Your task to perform on an android device: turn off location Image 0: 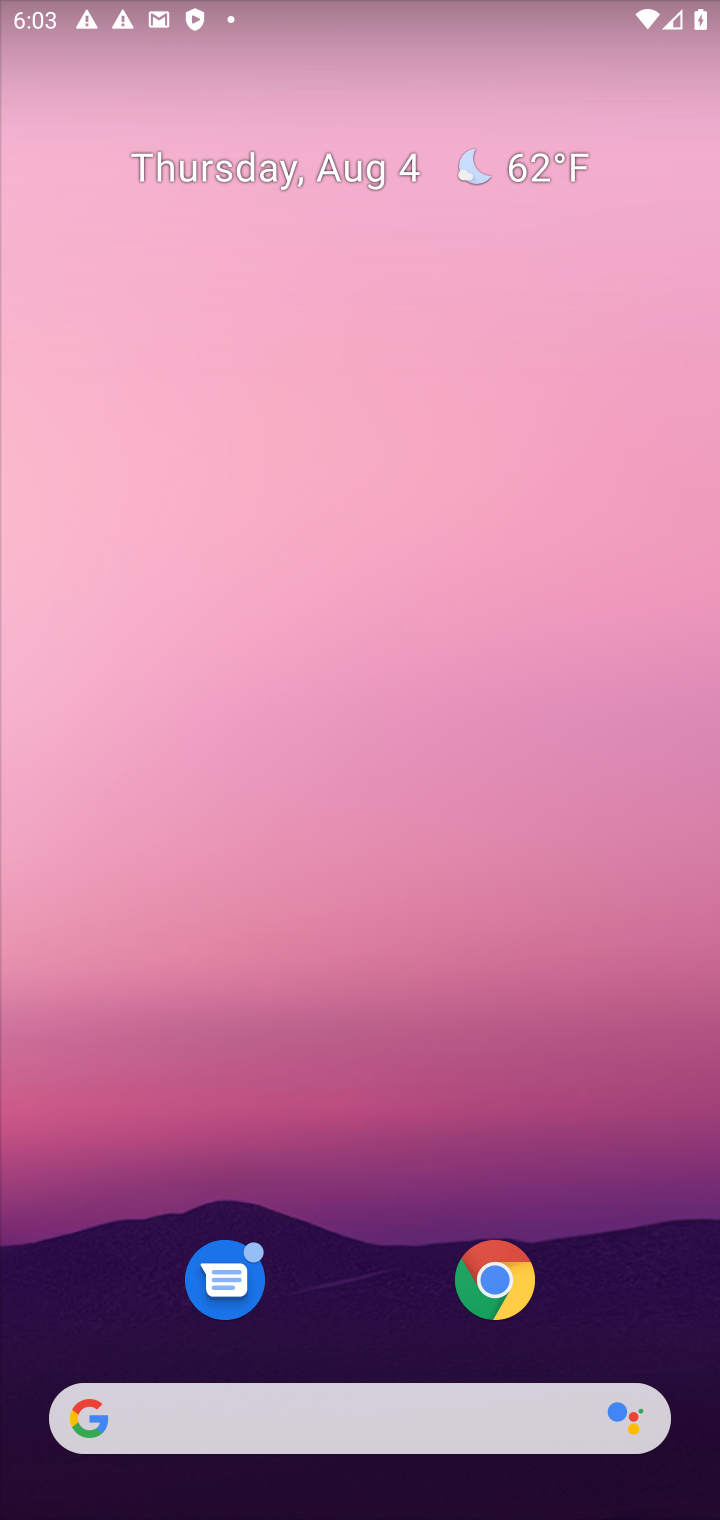
Step 0: drag from (331, 1299) to (374, 100)
Your task to perform on an android device: turn off location Image 1: 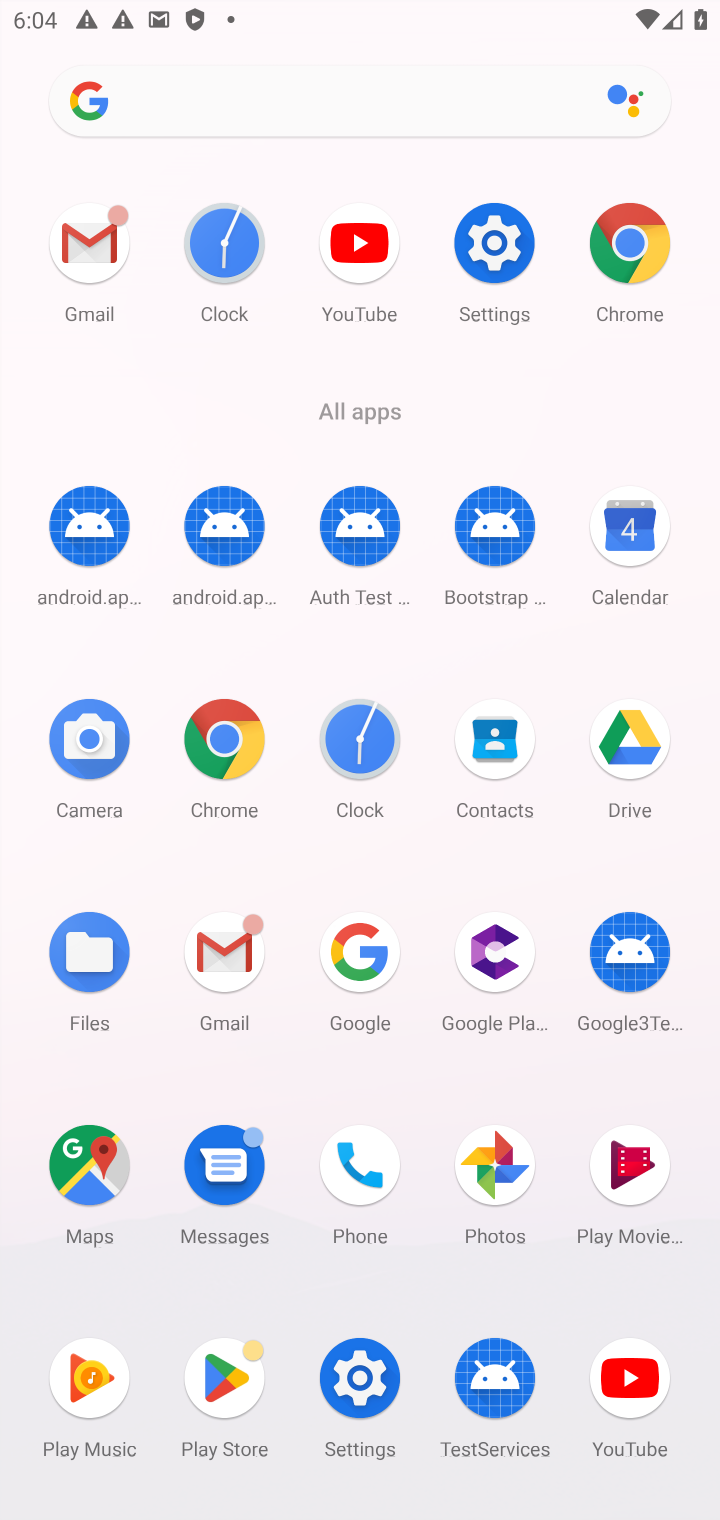
Step 1: click (497, 234)
Your task to perform on an android device: turn off location Image 2: 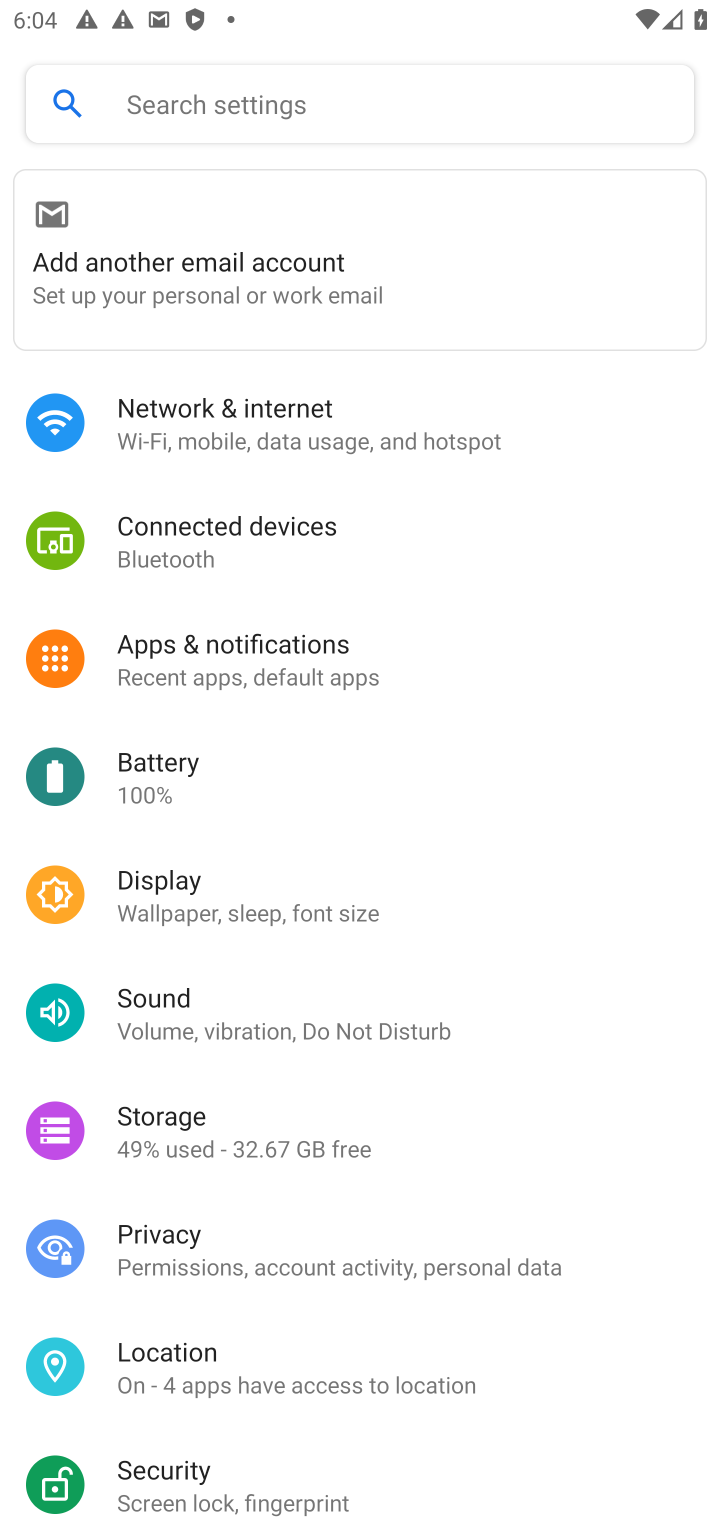
Step 2: click (213, 1373)
Your task to perform on an android device: turn off location Image 3: 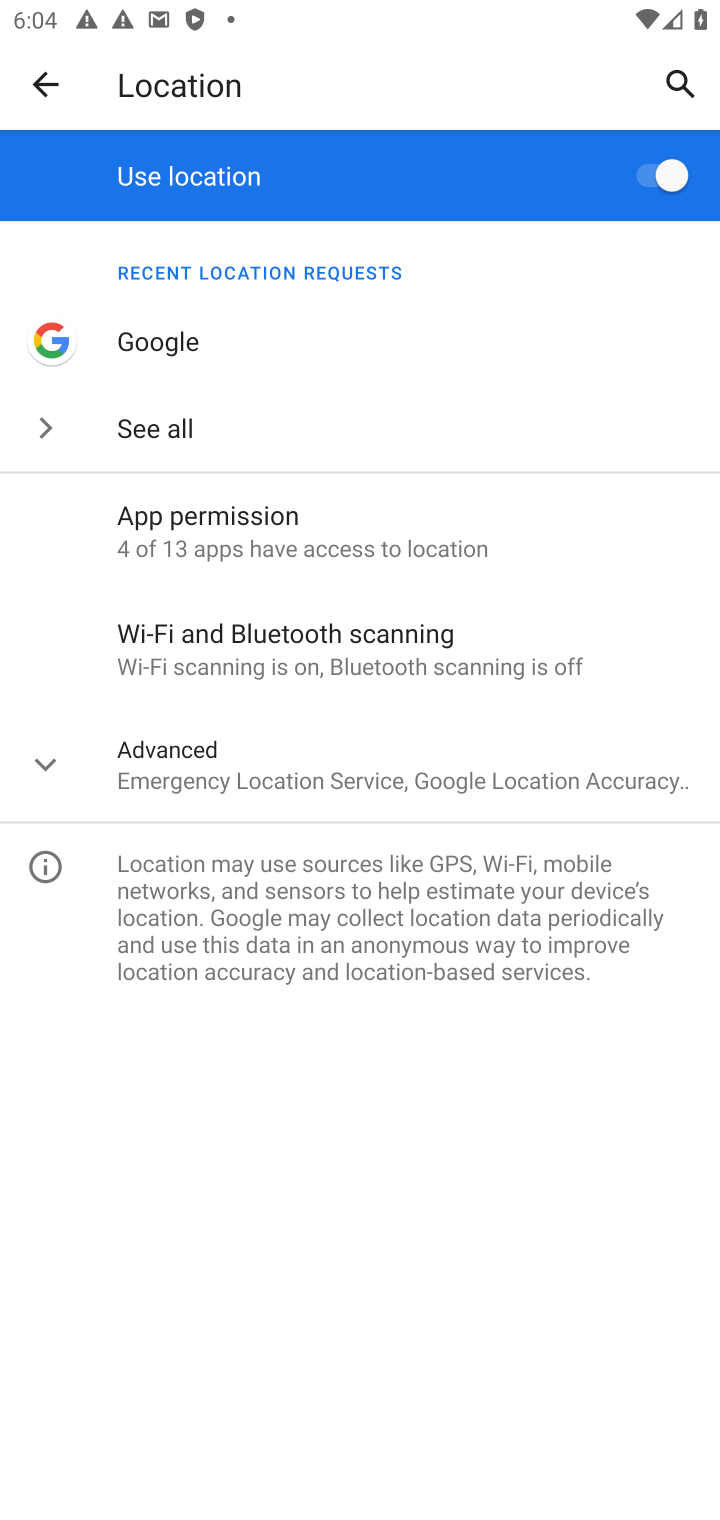
Step 3: click (652, 177)
Your task to perform on an android device: turn off location Image 4: 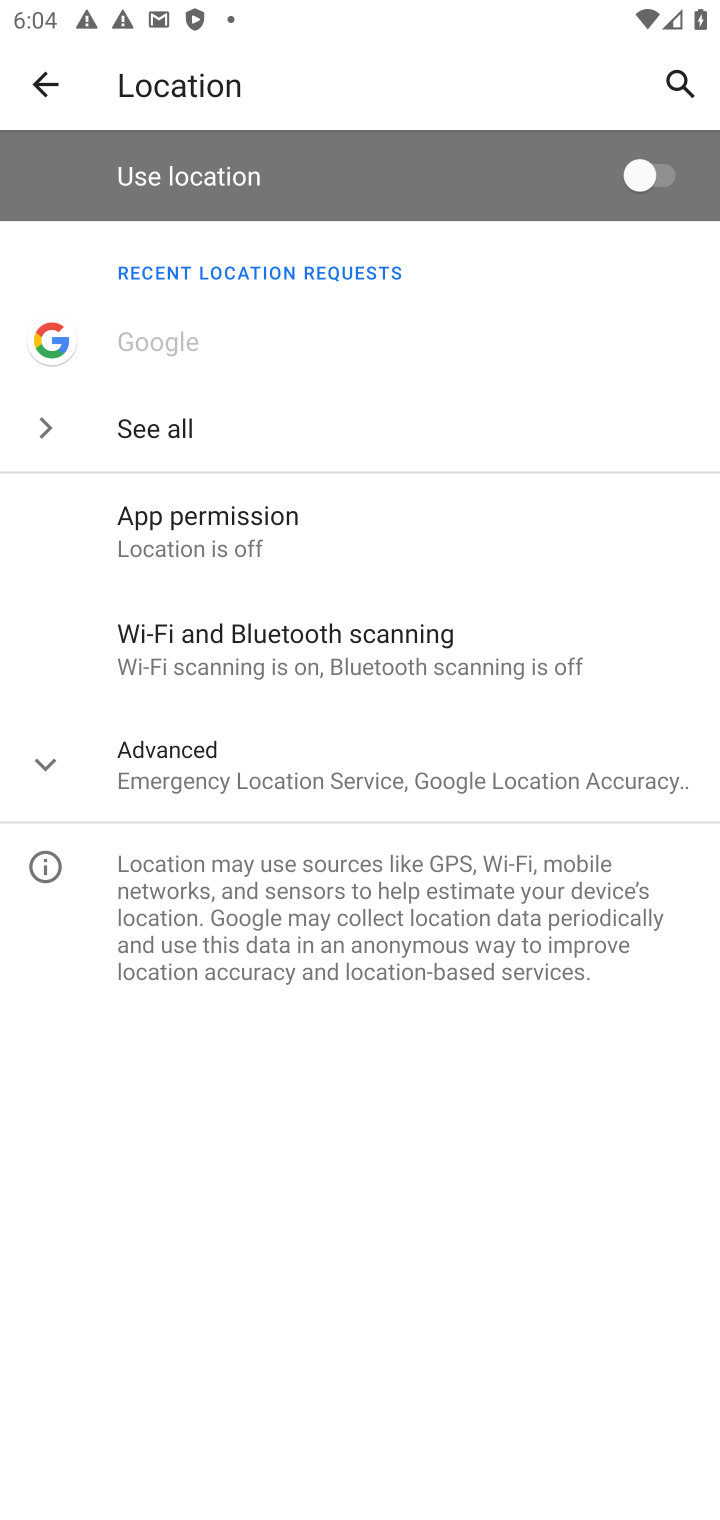
Step 4: task complete